Your task to perform on an android device: Open calendar and show me the first week of next month Image 0: 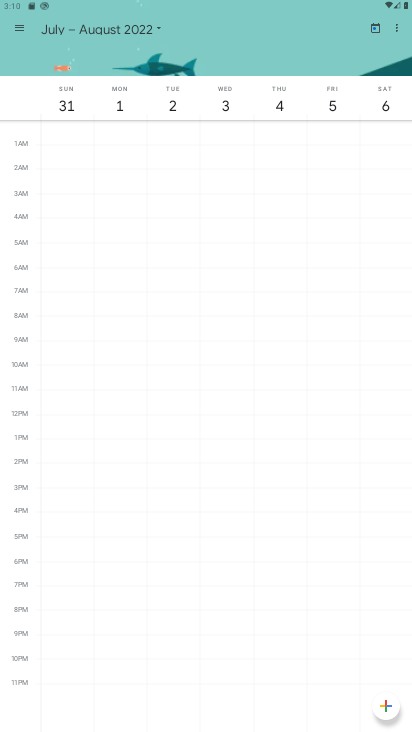
Step 0: press home button
Your task to perform on an android device: Open calendar and show me the first week of next month Image 1: 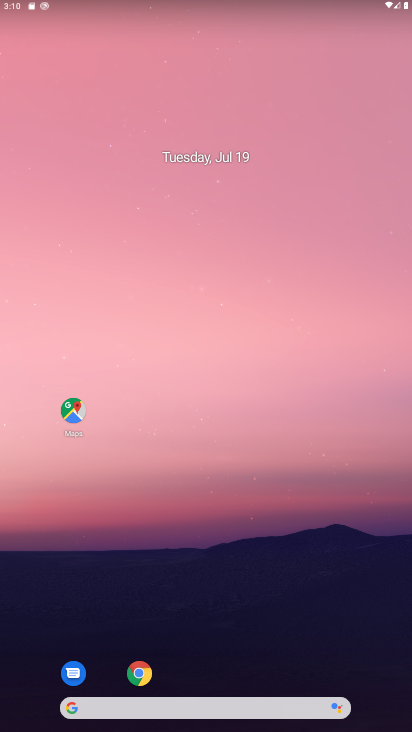
Step 1: drag from (211, 584) to (261, 135)
Your task to perform on an android device: Open calendar and show me the first week of next month Image 2: 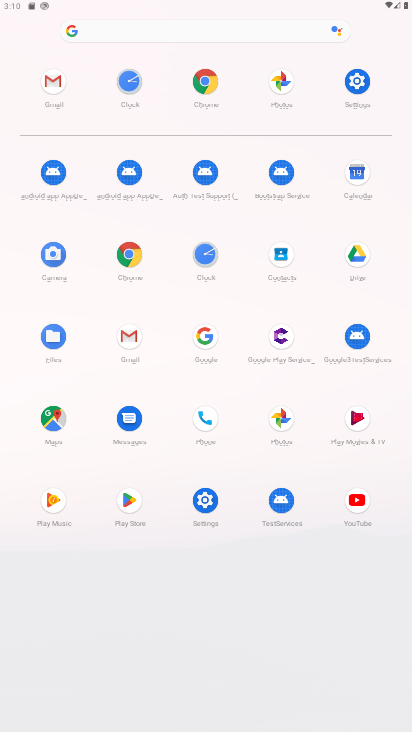
Step 2: click (366, 173)
Your task to perform on an android device: Open calendar and show me the first week of next month Image 3: 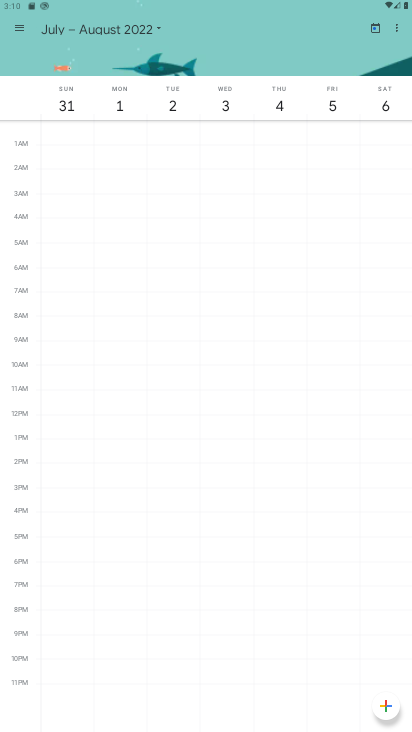
Step 3: task complete